Your task to perform on an android device: turn on the 12-hour format for clock Image 0: 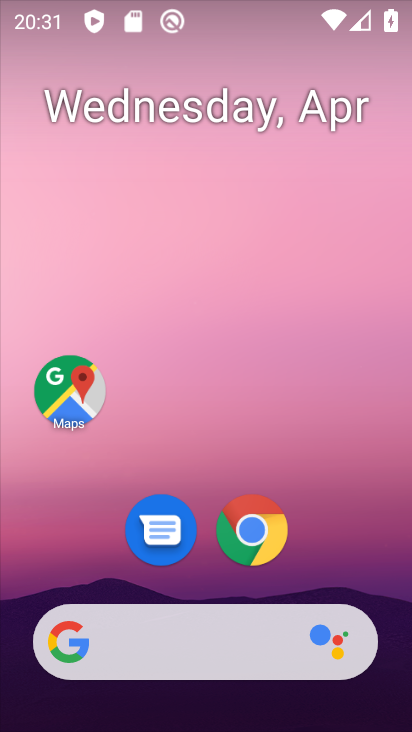
Step 0: drag from (334, 515) to (315, 104)
Your task to perform on an android device: turn on the 12-hour format for clock Image 1: 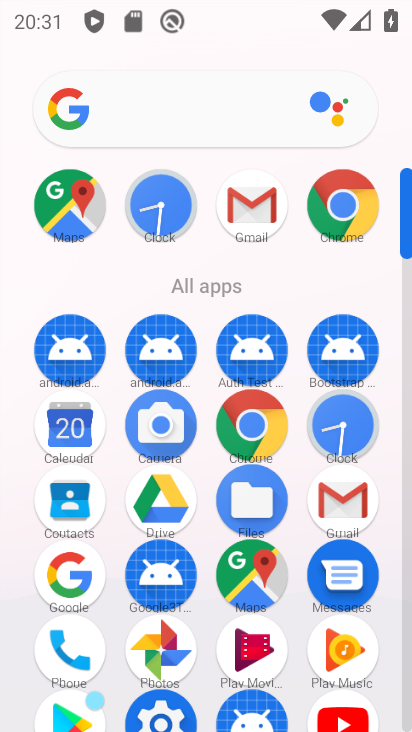
Step 1: click (177, 194)
Your task to perform on an android device: turn on the 12-hour format for clock Image 2: 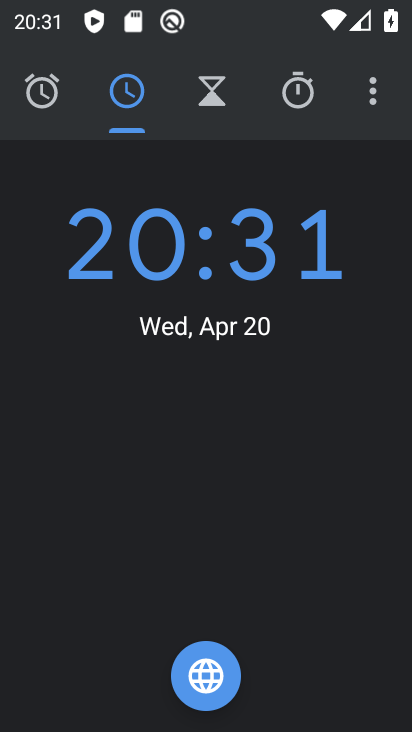
Step 2: click (377, 100)
Your task to perform on an android device: turn on the 12-hour format for clock Image 3: 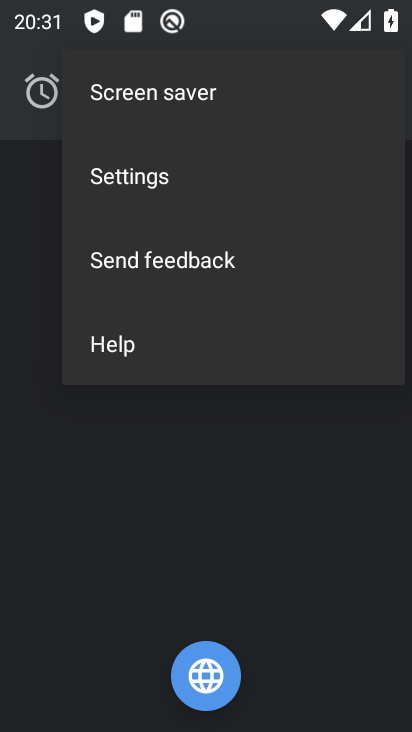
Step 3: click (192, 181)
Your task to perform on an android device: turn on the 12-hour format for clock Image 4: 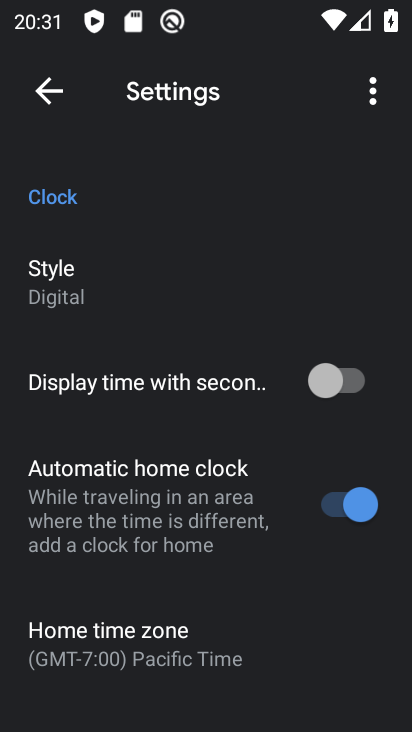
Step 4: drag from (250, 577) to (298, 173)
Your task to perform on an android device: turn on the 12-hour format for clock Image 5: 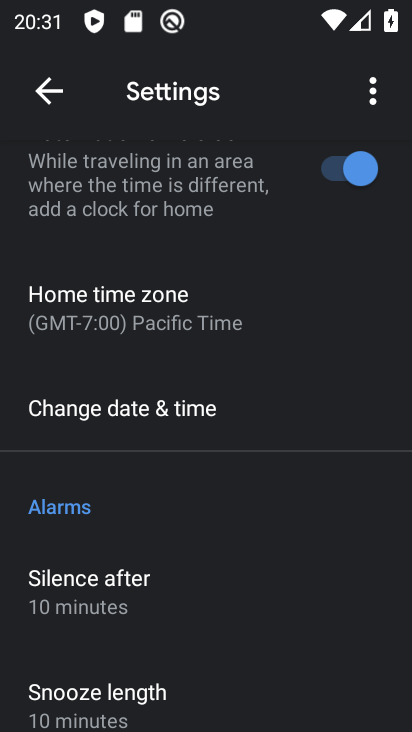
Step 5: click (208, 417)
Your task to perform on an android device: turn on the 12-hour format for clock Image 6: 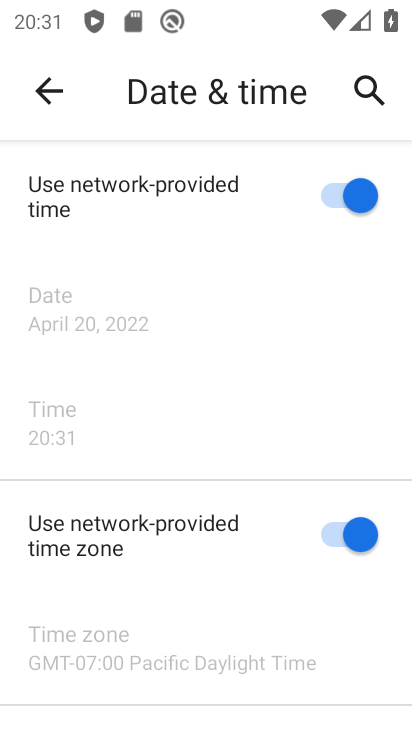
Step 6: drag from (313, 615) to (330, 202)
Your task to perform on an android device: turn on the 12-hour format for clock Image 7: 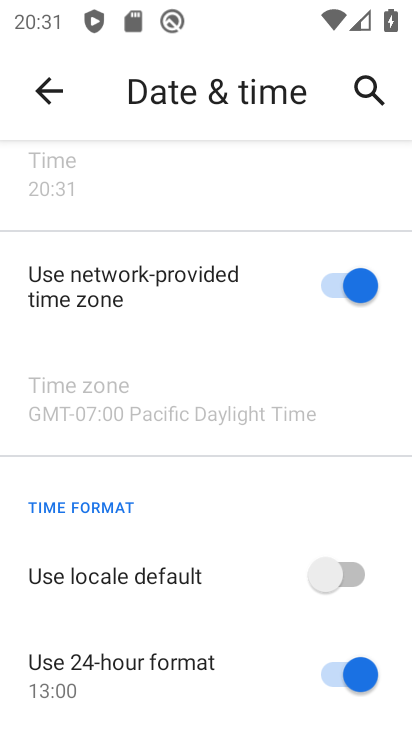
Step 7: click (337, 680)
Your task to perform on an android device: turn on the 12-hour format for clock Image 8: 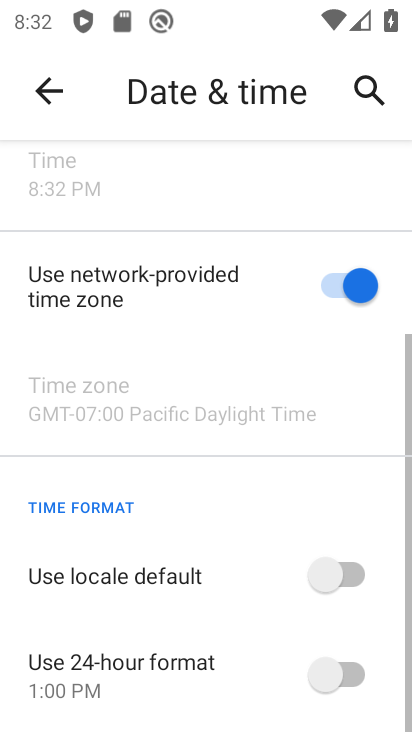
Step 8: task complete